Your task to perform on an android device: open the mobile data screen to see how much data has been used Image 0: 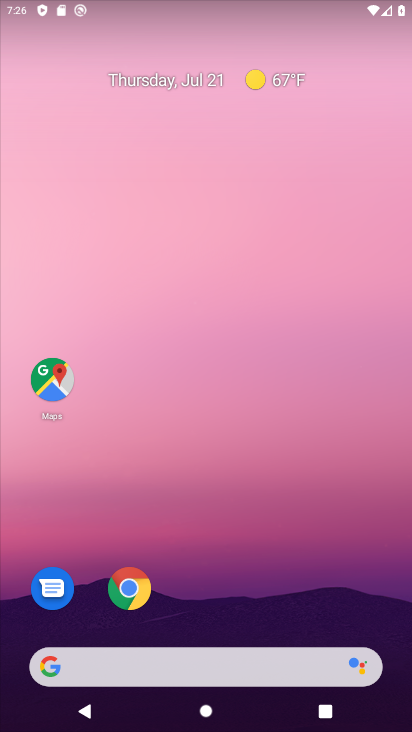
Step 0: drag from (255, 660) to (336, 172)
Your task to perform on an android device: open the mobile data screen to see how much data has been used Image 1: 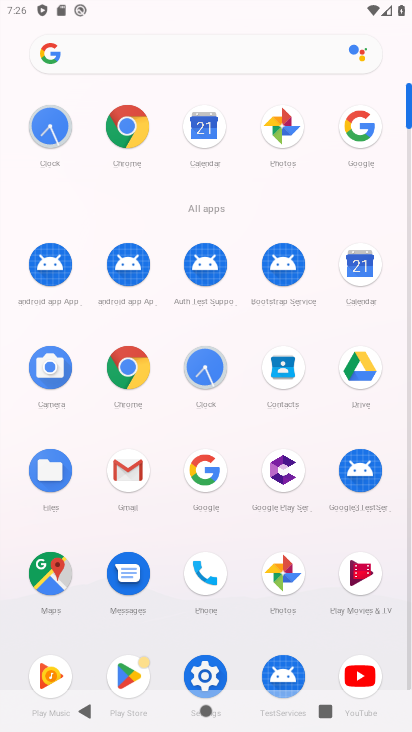
Step 1: click (220, 671)
Your task to perform on an android device: open the mobile data screen to see how much data has been used Image 2: 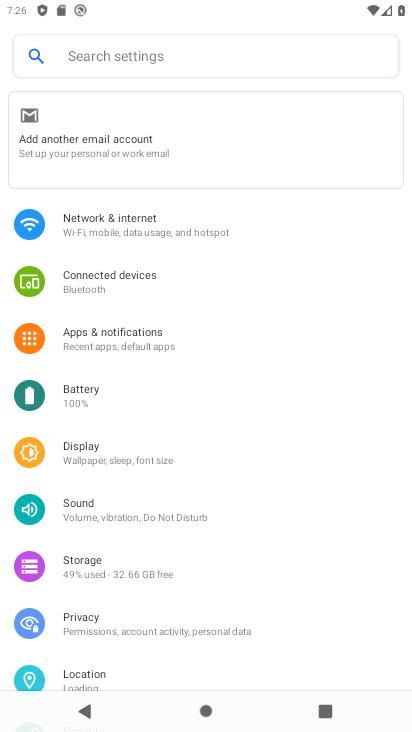
Step 2: click (170, 237)
Your task to perform on an android device: open the mobile data screen to see how much data has been used Image 3: 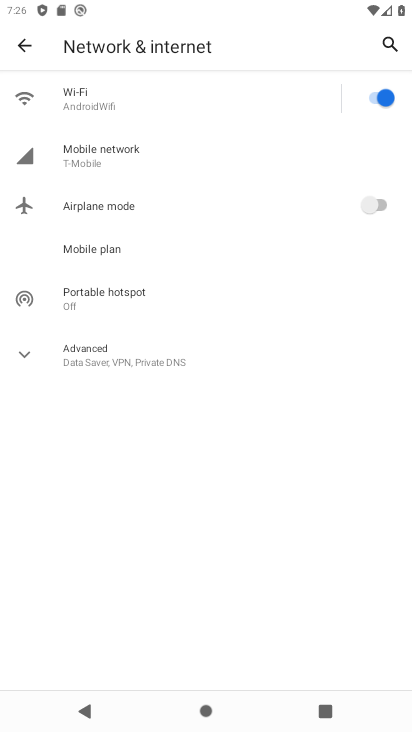
Step 3: click (125, 146)
Your task to perform on an android device: open the mobile data screen to see how much data has been used Image 4: 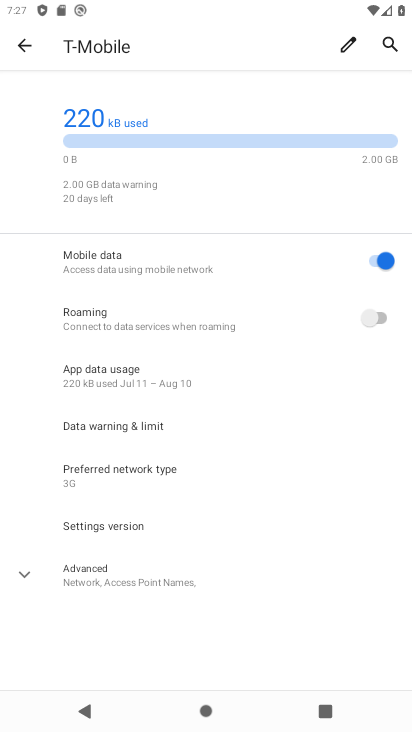
Step 4: task complete